Your task to perform on an android device: Add razer thresher to the cart on target.com, then select checkout. Image 0: 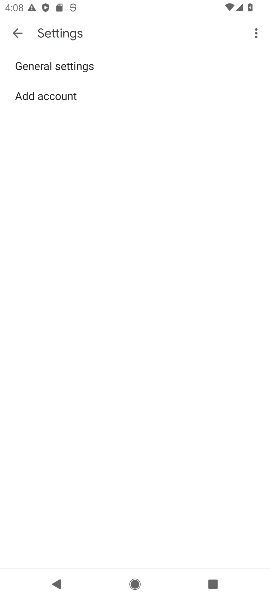
Step 0: press home button
Your task to perform on an android device: Add razer thresher to the cart on target.com, then select checkout. Image 1: 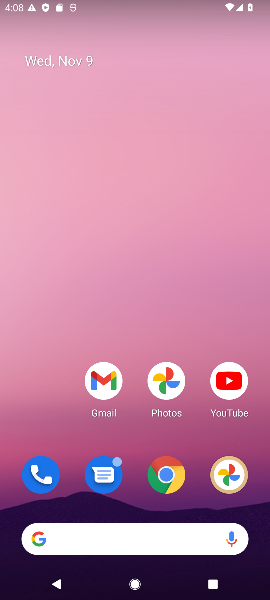
Step 1: drag from (204, 437) to (247, 32)
Your task to perform on an android device: Add razer thresher to the cart on target.com, then select checkout. Image 2: 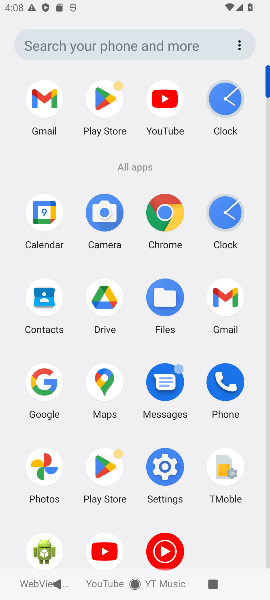
Step 2: click (170, 220)
Your task to perform on an android device: Add razer thresher to the cart on target.com, then select checkout. Image 3: 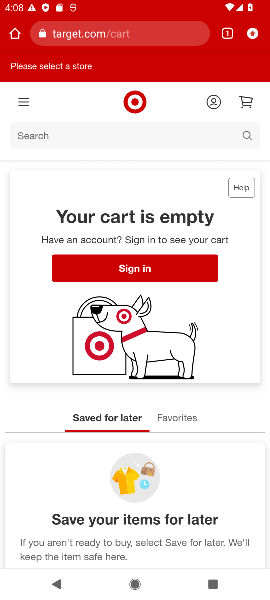
Step 3: click (131, 132)
Your task to perform on an android device: Add razer thresher to the cart on target.com, then select checkout. Image 4: 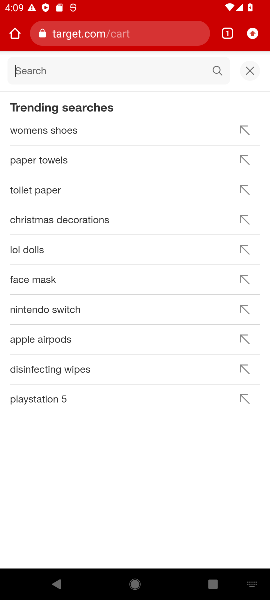
Step 4: type "target.com"
Your task to perform on an android device: Add razer thresher to the cart on target.com, then select checkout. Image 5: 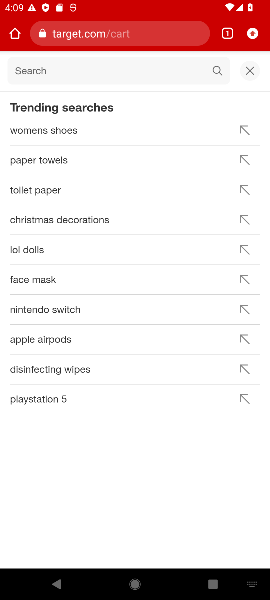
Step 5: press enter
Your task to perform on an android device: Add razer thresher to the cart on target.com, then select checkout. Image 6: 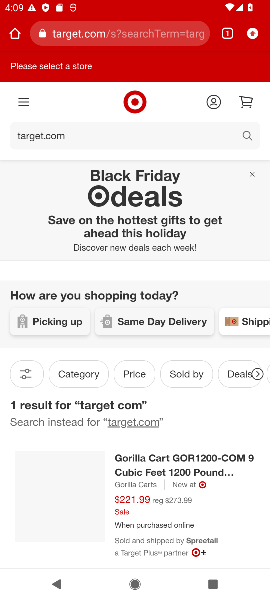
Step 6: drag from (132, 473) to (140, 88)
Your task to perform on an android device: Add razer thresher to the cart on target.com, then select checkout. Image 7: 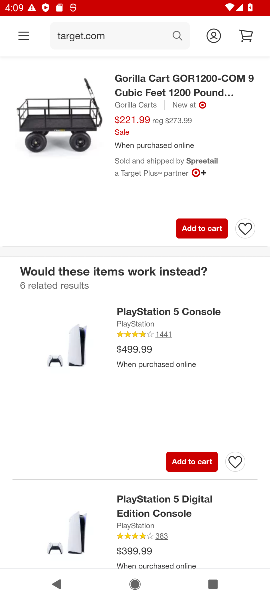
Step 7: click (206, 224)
Your task to perform on an android device: Add razer thresher to the cart on target.com, then select checkout. Image 8: 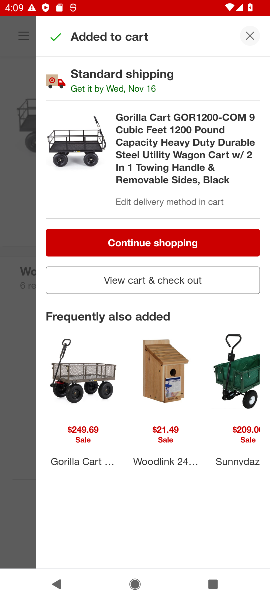
Step 8: click (118, 278)
Your task to perform on an android device: Add razer thresher to the cart on target.com, then select checkout. Image 9: 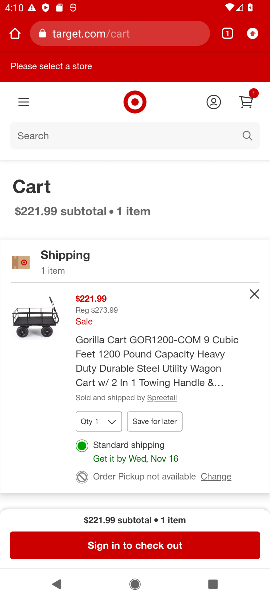
Step 9: task complete